Your task to perform on an android device: Open the calendar and show me this week's events? Image 0: 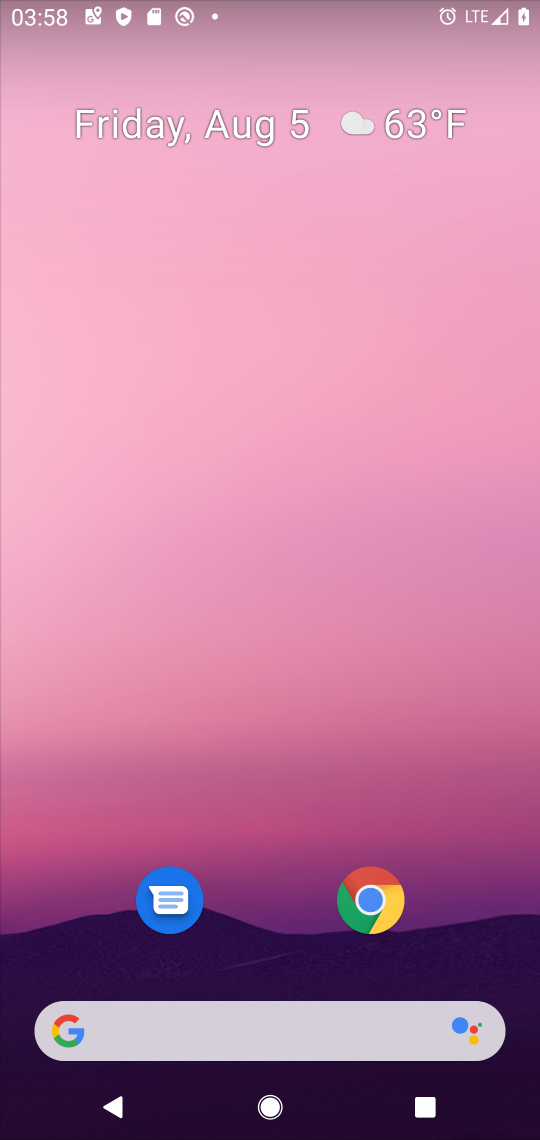
Step 0: drag from (270, 874) to (371, 1)
Your task to perform on an android device: Open the calendar and show me this week's events? Image 1: 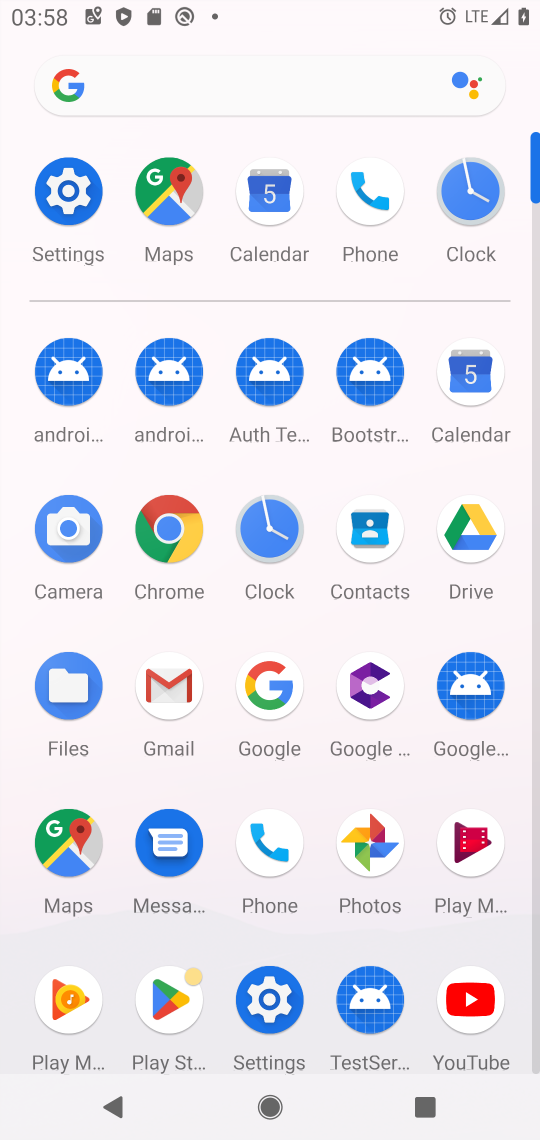
Step 1: click (478, 391)
Your task to perform on an android device: Open the calendar and show me this week's events? Image 2: 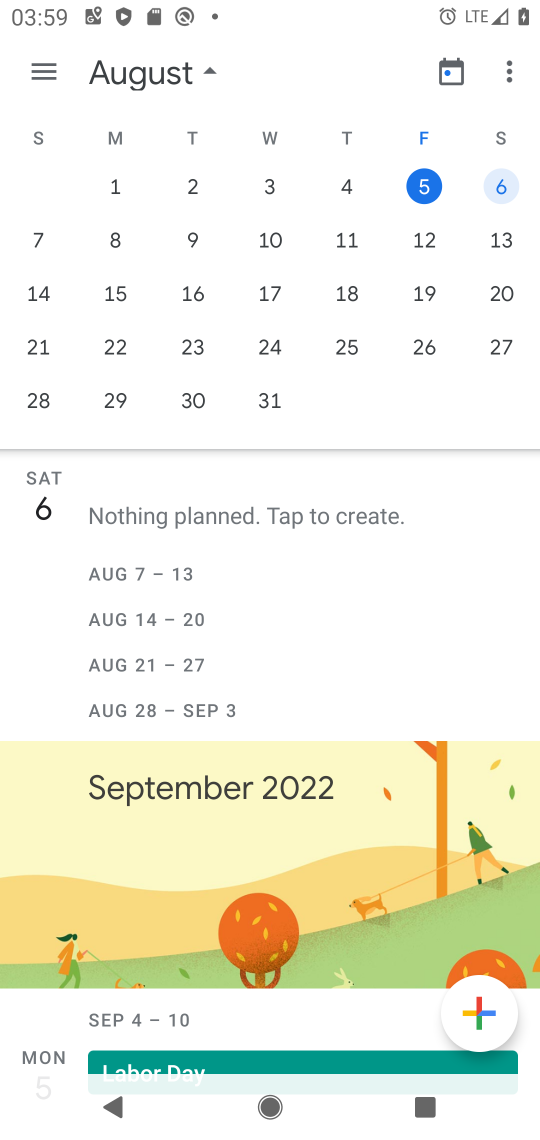
Step 2: task complete